Your task to perform on an android device: Go to settings Image 0: 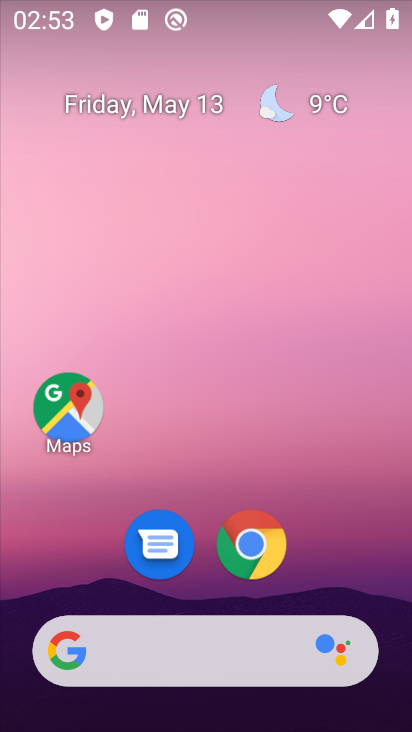
Step 0: drag from (317, 532) to (227, 19)
Your task to perform on an android device: Go to settings Image 1: 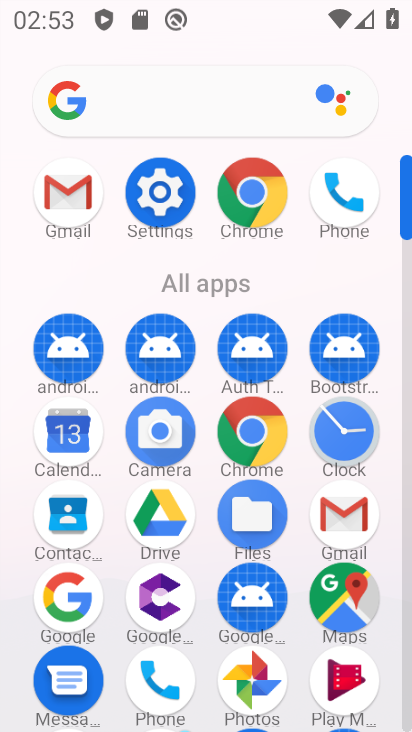
Step 1: drag from (11, 541) to (20, 160)
Your task to perform on an android device: Go to settings Image 2: 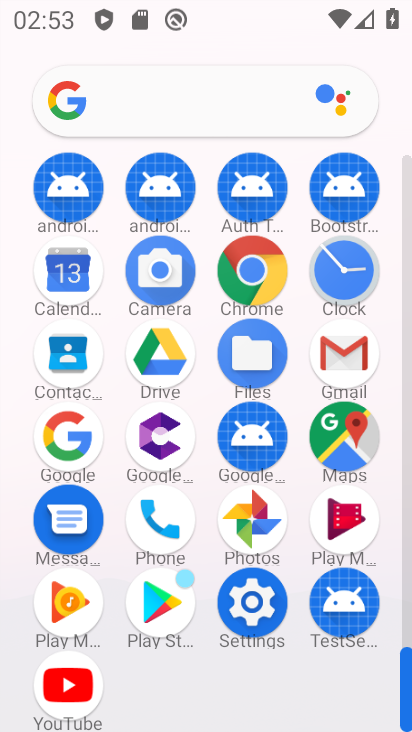
Step 2: click (249, 600)
Your task to perform on an android device: Go to settings Image 3: 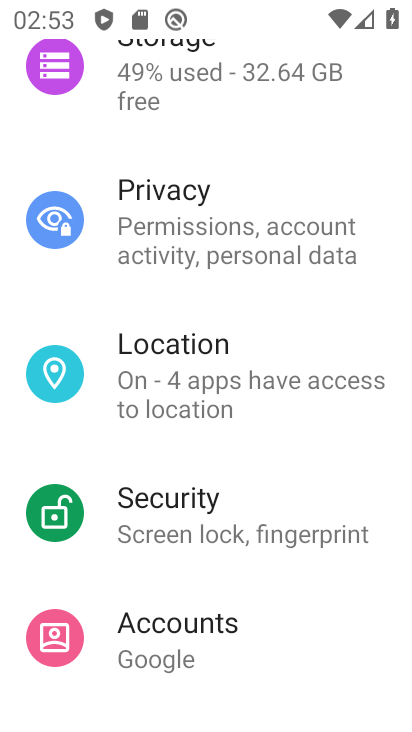
Step 3: task complete